Your task to perform on an android device: turn smart compose on in the gmail app Image 0: 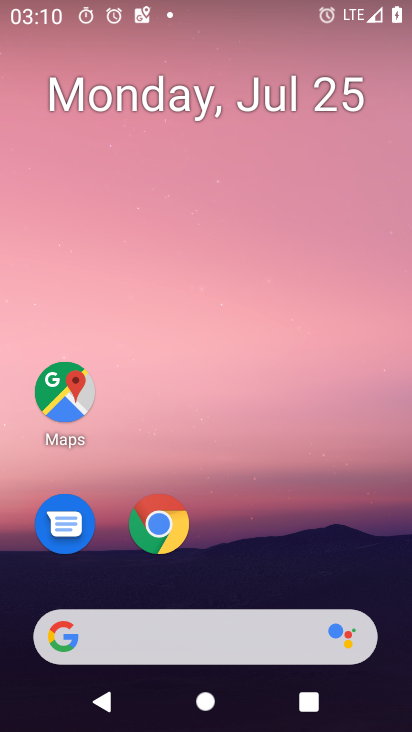
Step 0: press home button
Your task to perform on an android device: turn smart compose on in the gmail app Image 1: 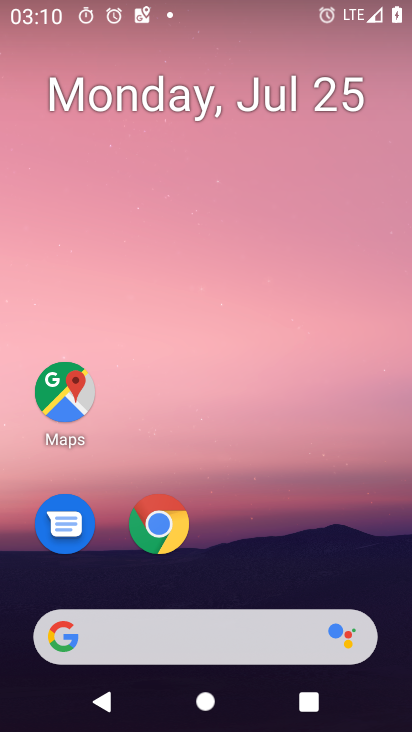
Step 1: drag from (239, 565) to (184, 10)
Your task to perform on an android device: turn smart compose on in the gmail app Image 2: 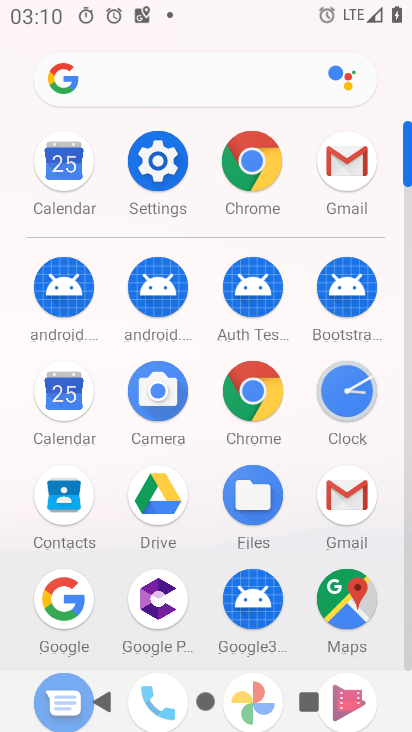
Step 2: click (336, 164)
Your task to perform on an android device: turn smart compose on in the gmail app Image 3: 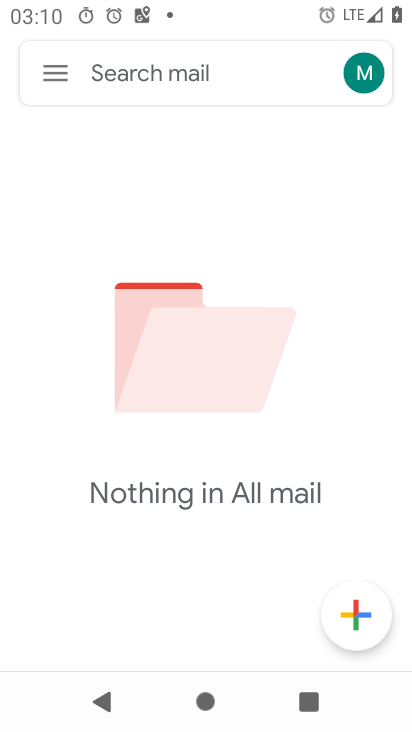
Step 3: click (62, 86)
Your task to perform on an android device: turn smart compose on in the gmail app Image 4: 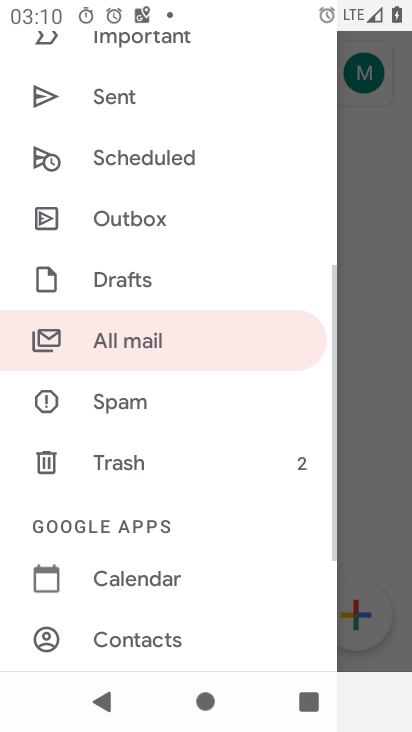
Step 4: drag from (240, 585) to (185, 82)
Your task to perform on an android device: turn smart compose on in the gmail app Image 5: 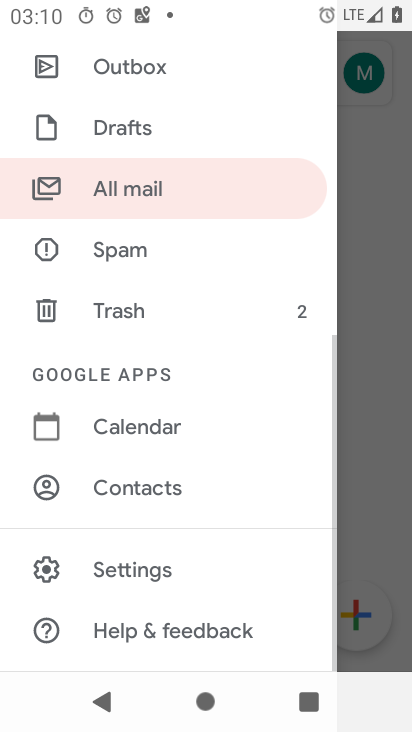
Step 5: click (138, 562)
Your task to perform on an android device: turn smart compose on in the gmail app Image 6: 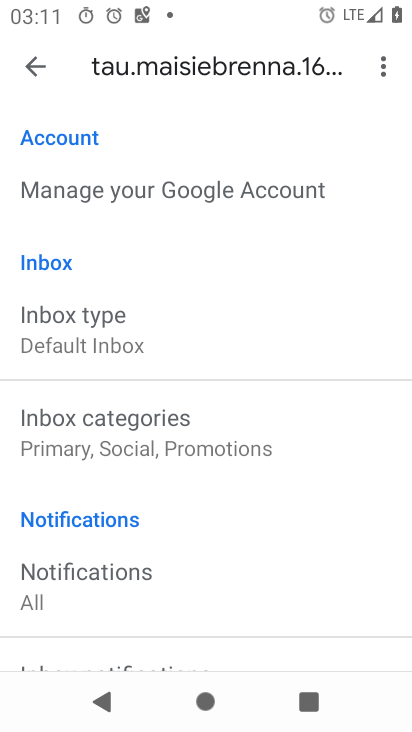
Step 6: task complete